Your task to perform on an android device: toggle translation in the chrome app Image 0: 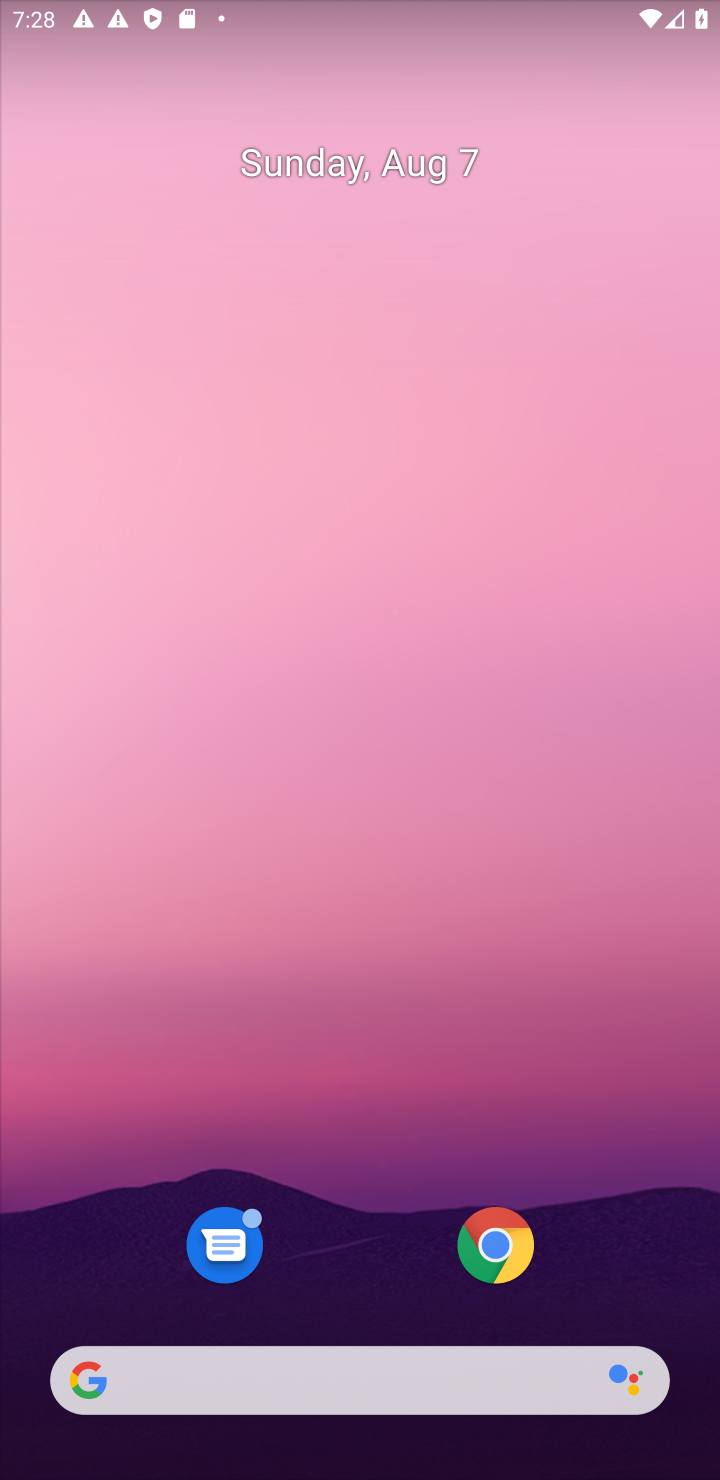
Step 0: click (507, 1252)
Your task to perform on an android device: toggle translation in the chrome app Image 1: 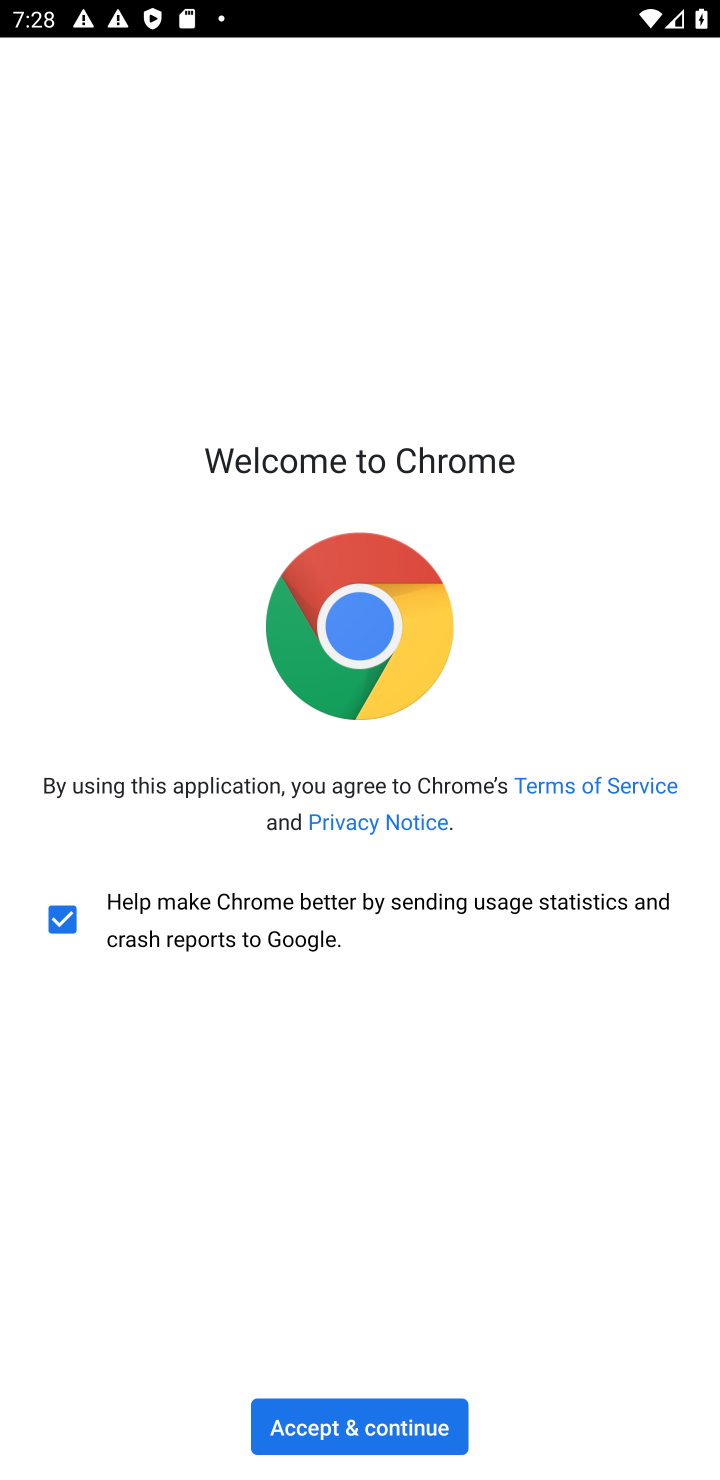
Step 1: click (304, 1445)
Your task to perform on an android device: toggle translation in the chrome app Image 2: 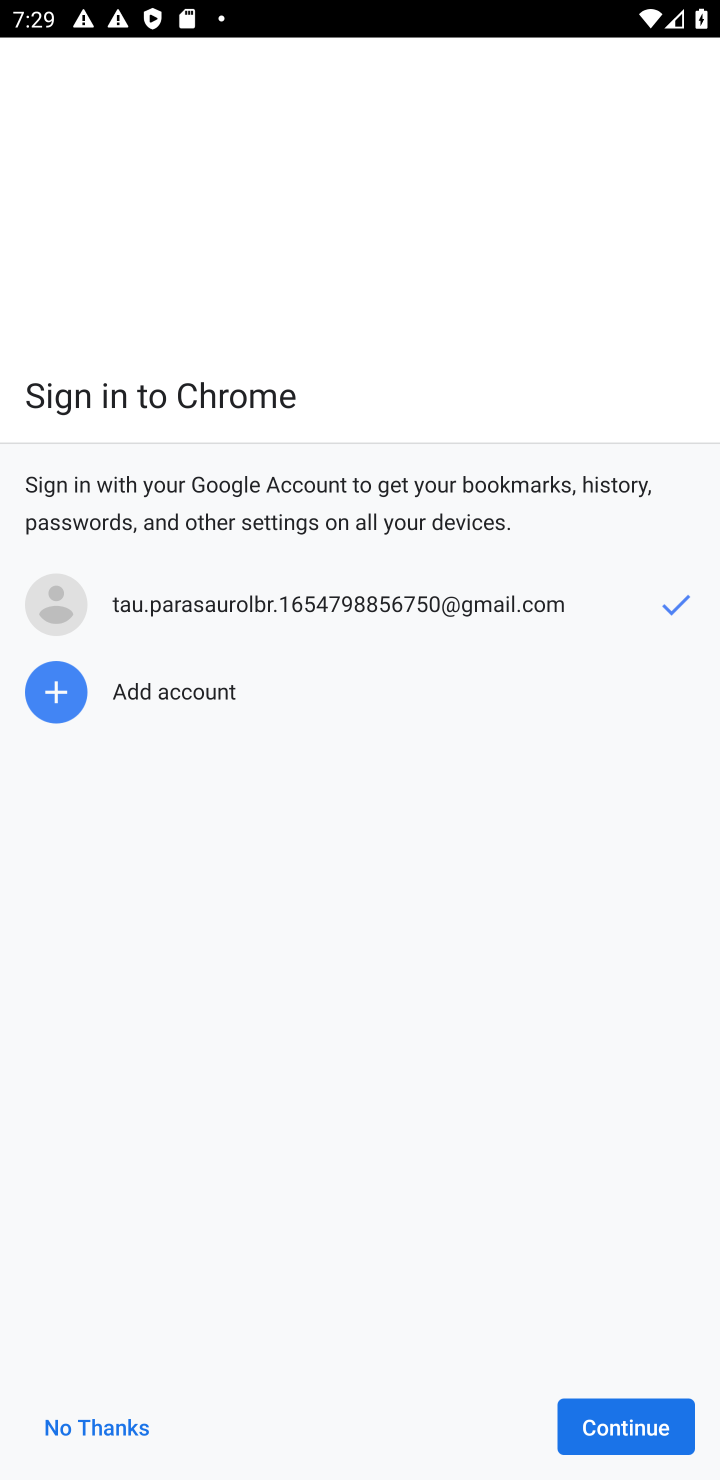
Step 2: click (634, 1437)
Your task to perform on an android device: toggle translation in the chrome app Image 3: 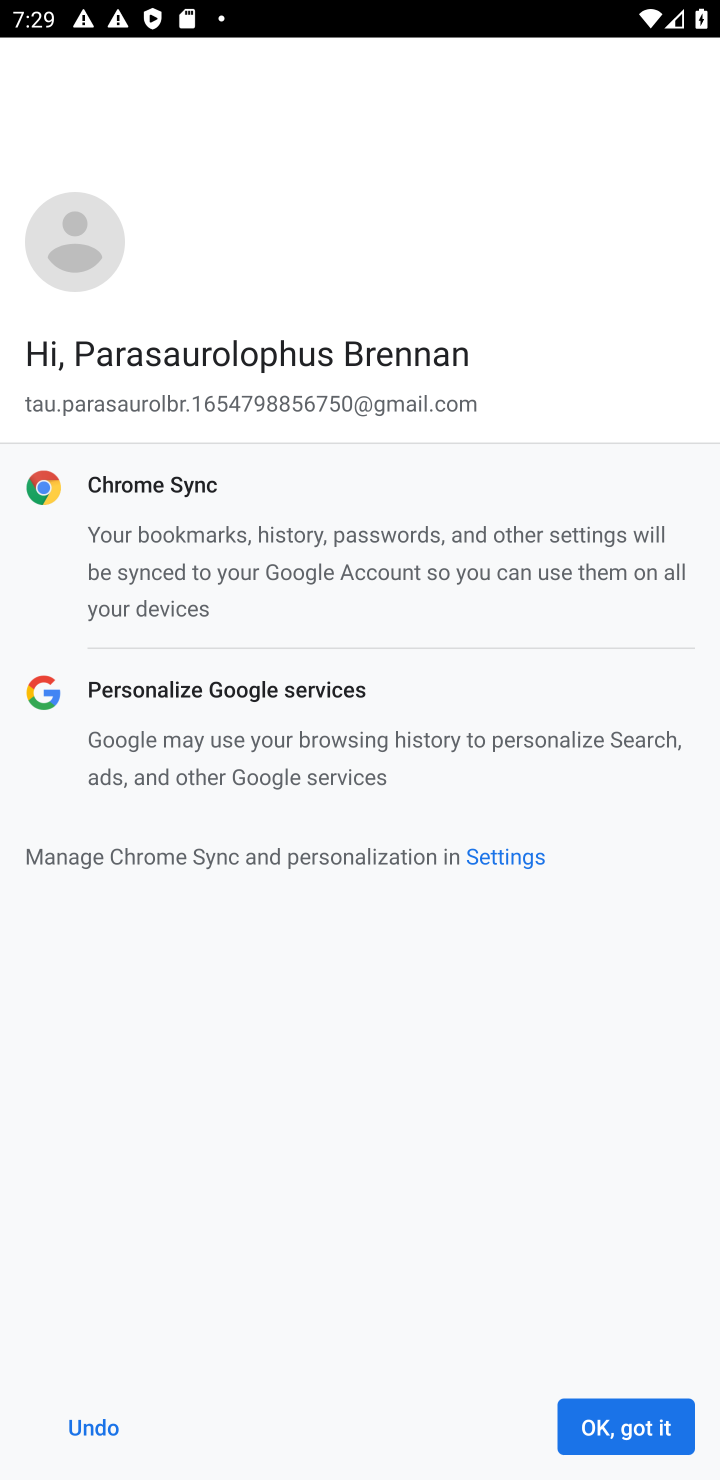
Step 3: click (634, 1437)
Your task to perform on an android device: toggle translation in the chrome app Image 4: 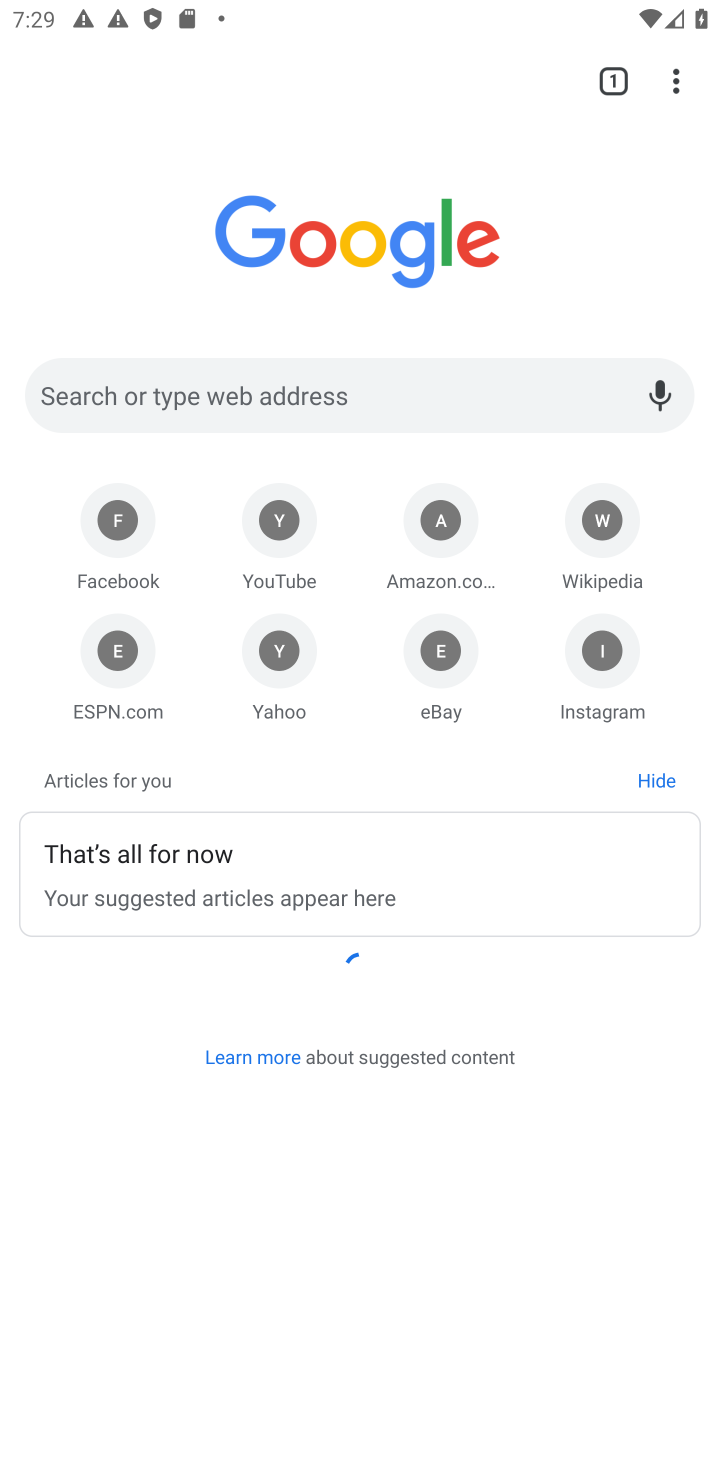
Step 4: drag from (683, 78) to (540, 685)
Your task to perform on an android device: toggle translation in the chrome app Image 5: 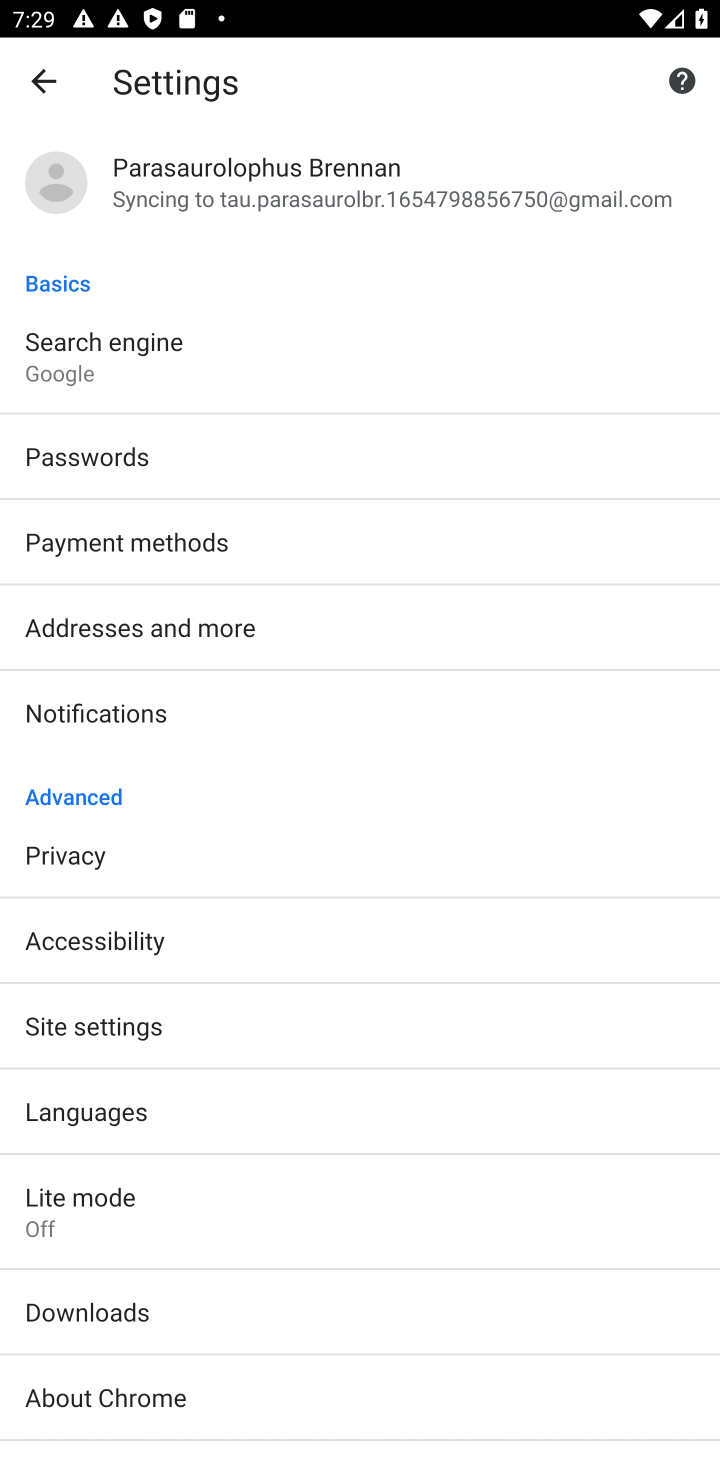
Step 5: click (94, 1113)
Your task to perform on an android device: toggle translation in the chrome app Image 6: 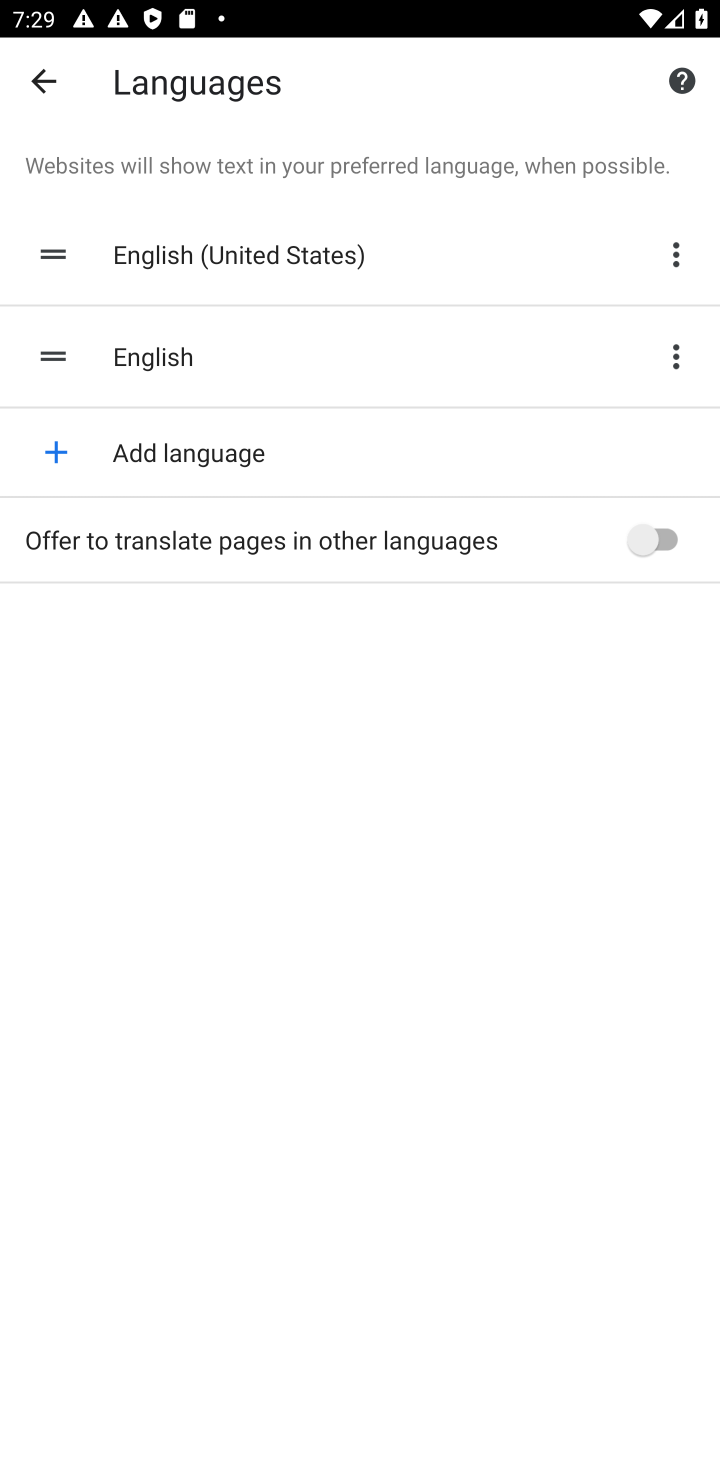
Step 6: click (654, 548)
Your task to perform on an android device: toggle translation in the chrome app Image 7: 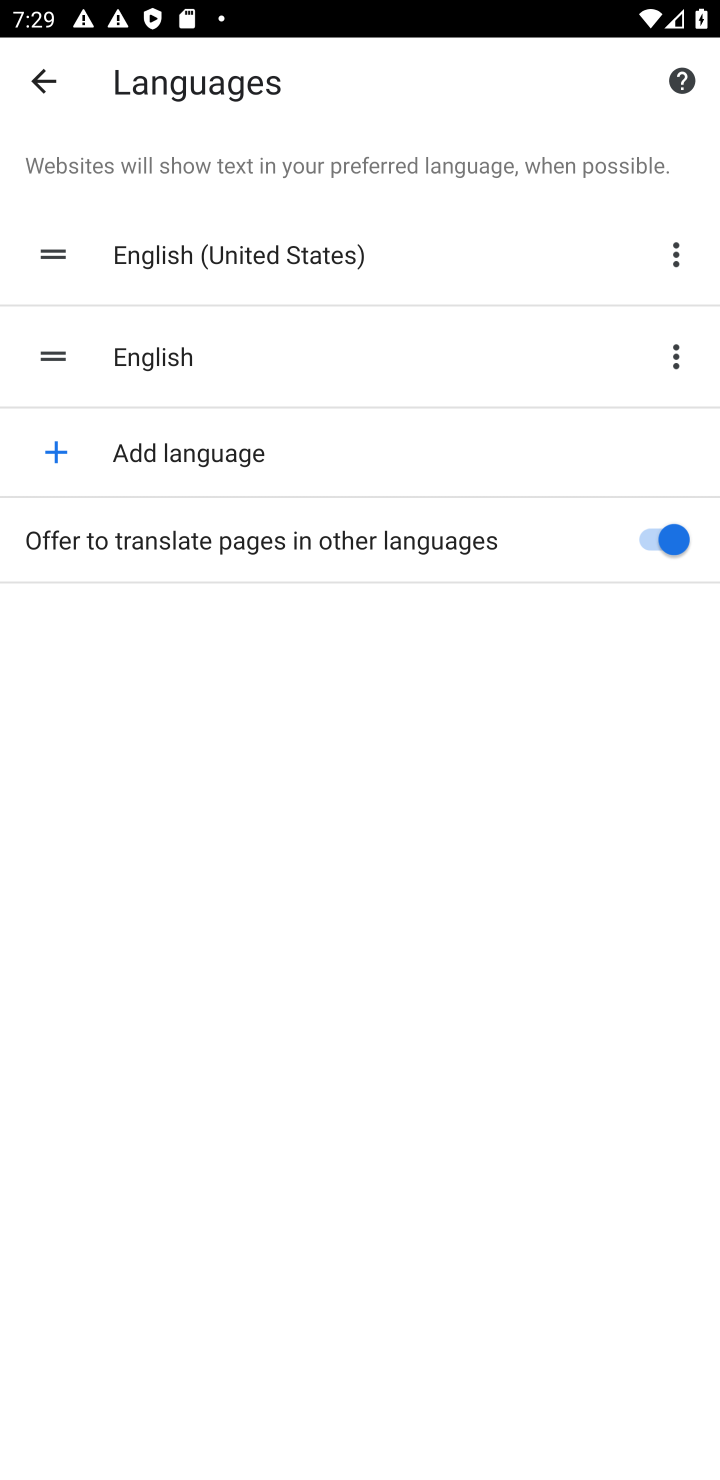
Step 7: task complete